Your task to perform on an android device: Toggle the flashlight Image 0: 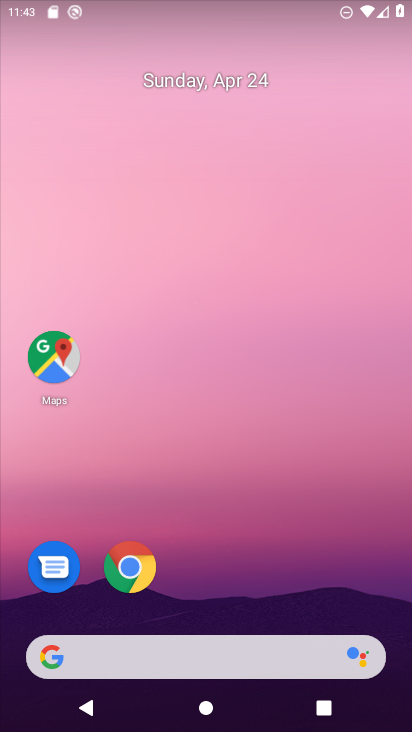
Step 0: drag from (233, 587) to (237, 90)
Your task to perform on an android device: Toggle the flashlight Image 1: 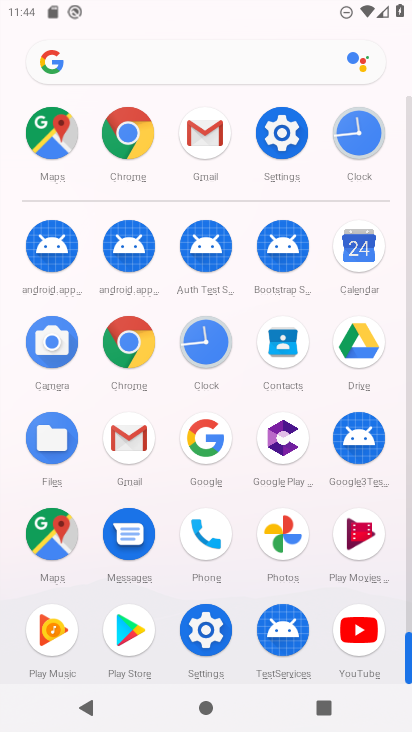
Step 1: click (217, 639)
Your task to perform on an android device: Toggle the flashlight Image 2: 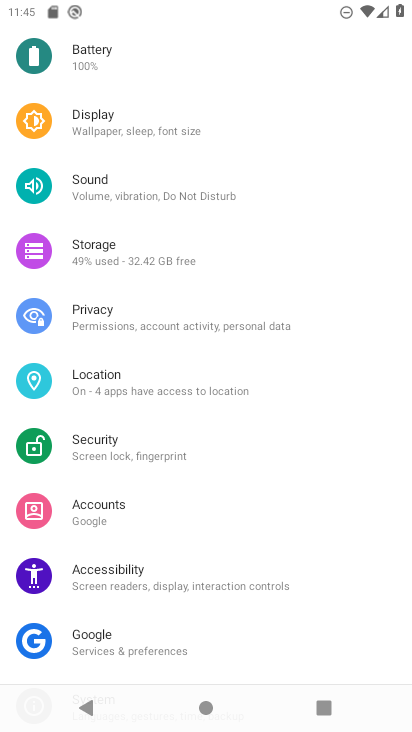
Step 2: task complete